Your task to perform on an android device: What's the latest news in space science? Image 0: 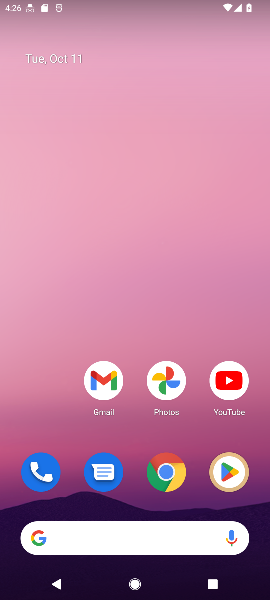
Step 0: click (168, 474)
Your task to perform on an android device: What's the latest news in space science? Image 1: 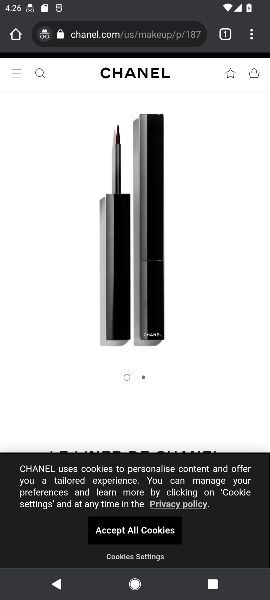
Step 1: click (141, 34)
Your task to perform on an android device: What's the latest news in space science? Image 2: 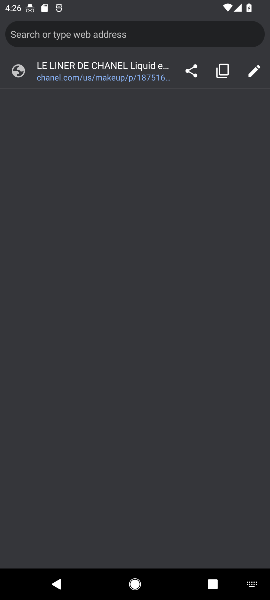
Step 2: type " latest news in space science?"
Your task to perform on an android device: What's the latest news in space science? Image 3: 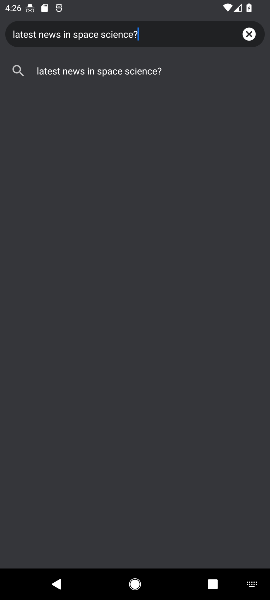
Step 3: click (33, 70)
Your task to perform on an android device: What's the latest news in space science? Image 4: 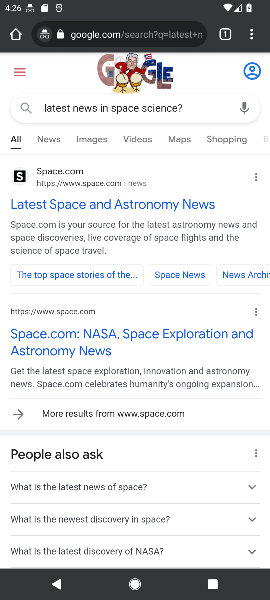
Step 4: click (47, 149)
Your task to perform on an android device: What's the latest news in space science? Image 5: 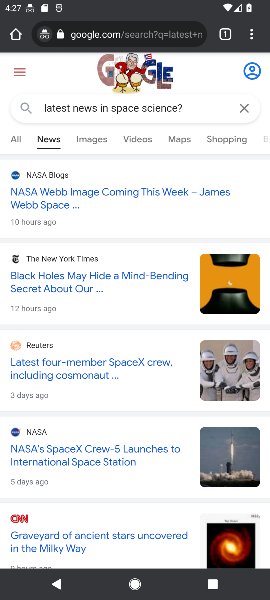
Step 5: task complete